Your task to perform on an android device: Go to Amazon Image 0: 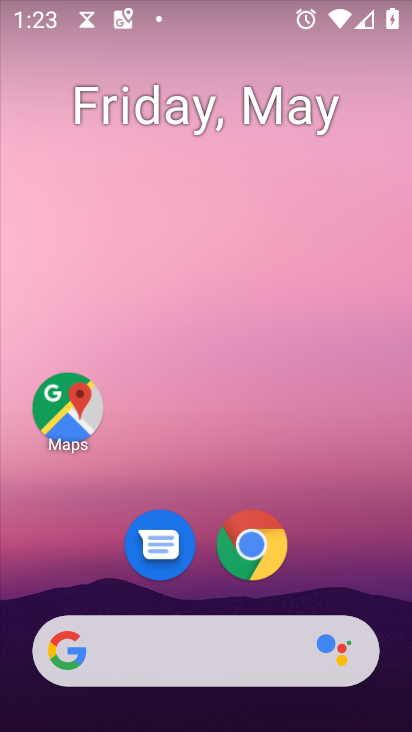
Step 0: click (260, 559)
Your task to perform on an android device: Go to Amazon Image 1: 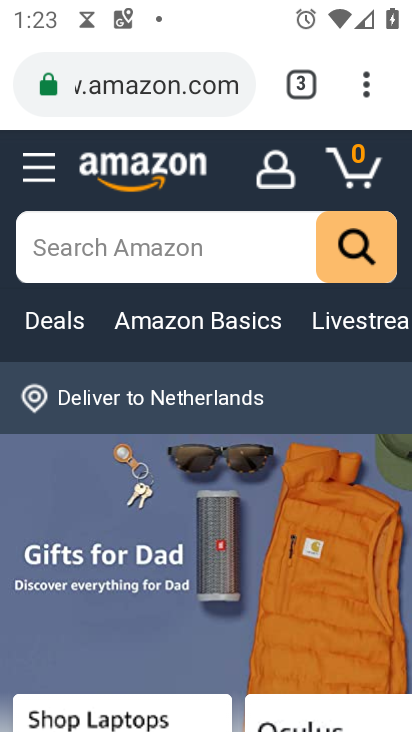
Step 1: task complete